Your task to perform on an android device: Is it going to rain today? Image 0: 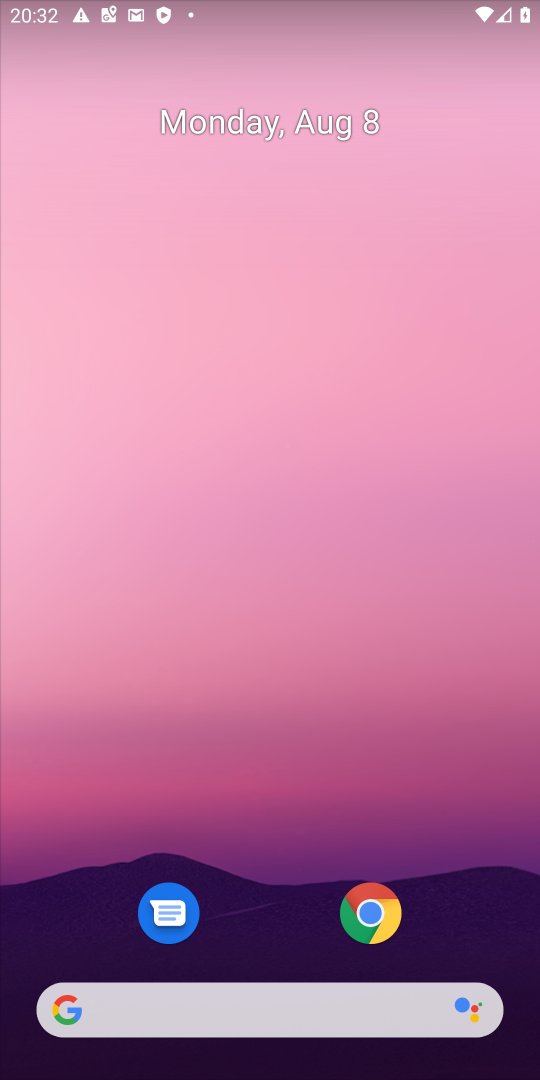
Step 0: press home button
Your task to perform on an android device: Is it going to rain today? Image 1: 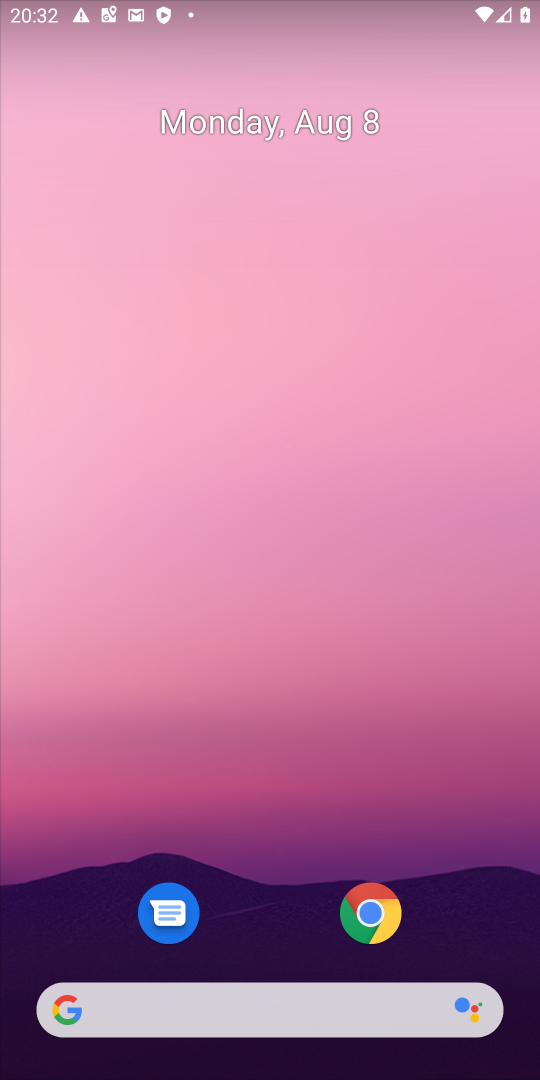
Step 1: click (376, 905)
Your task to perform on an android device: Is it going to rain today? Image 2: 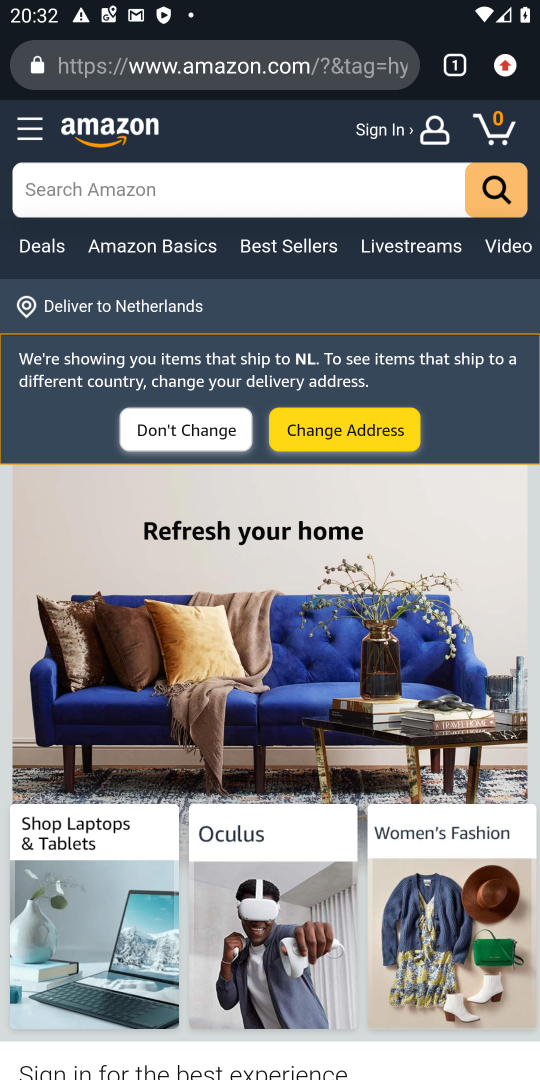
Step 2: click (200, 57)
Your task to perform on an android device: Is it going to rain today? Image 3: 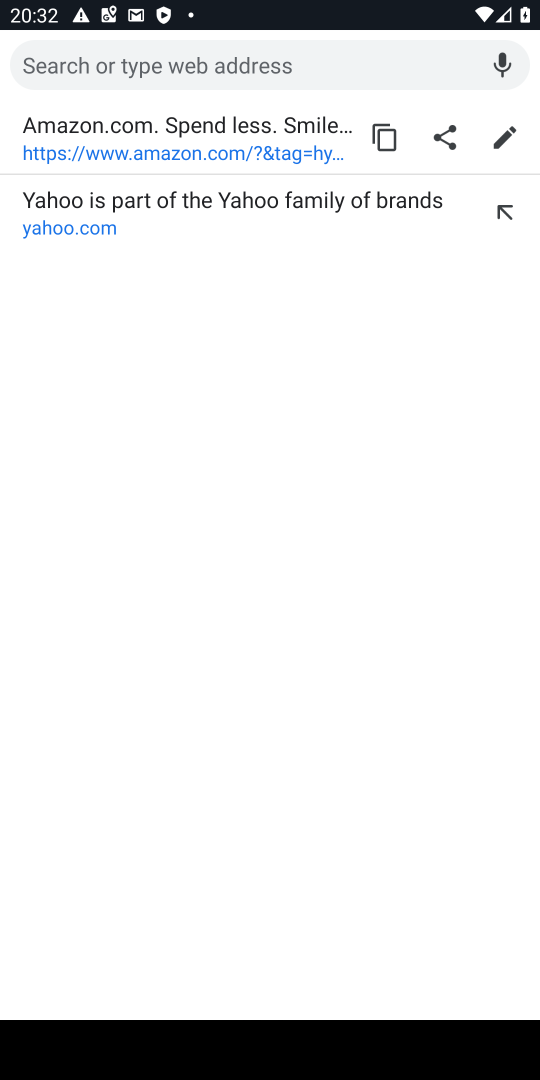
Step 3: type "Is it going to rain today?"
Your task to perform on an android device: Is it going to rain today? Image 4: 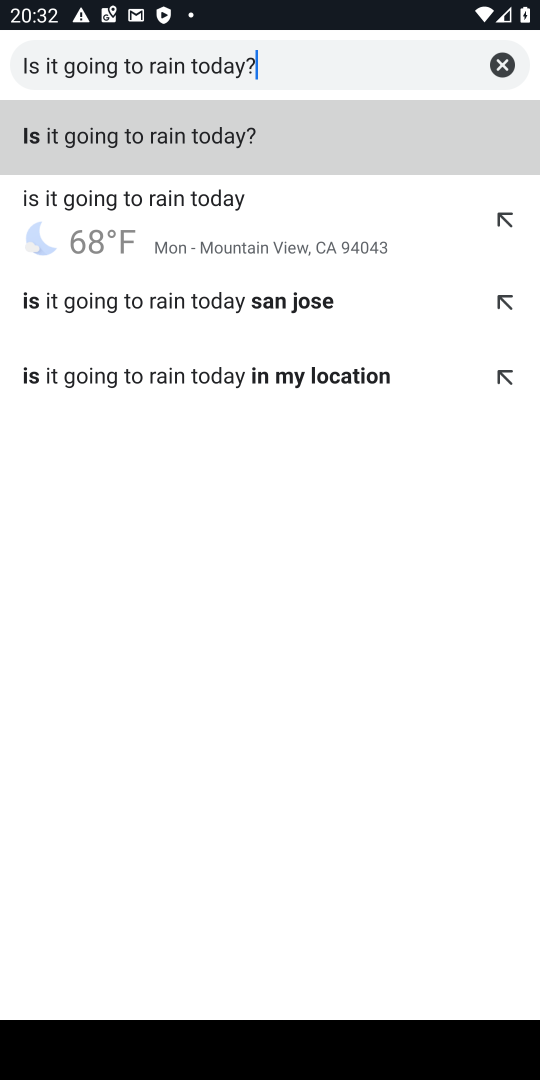
Step 4: type ""
Your task to perform on an android device: Is it going to rain today? Image 5: 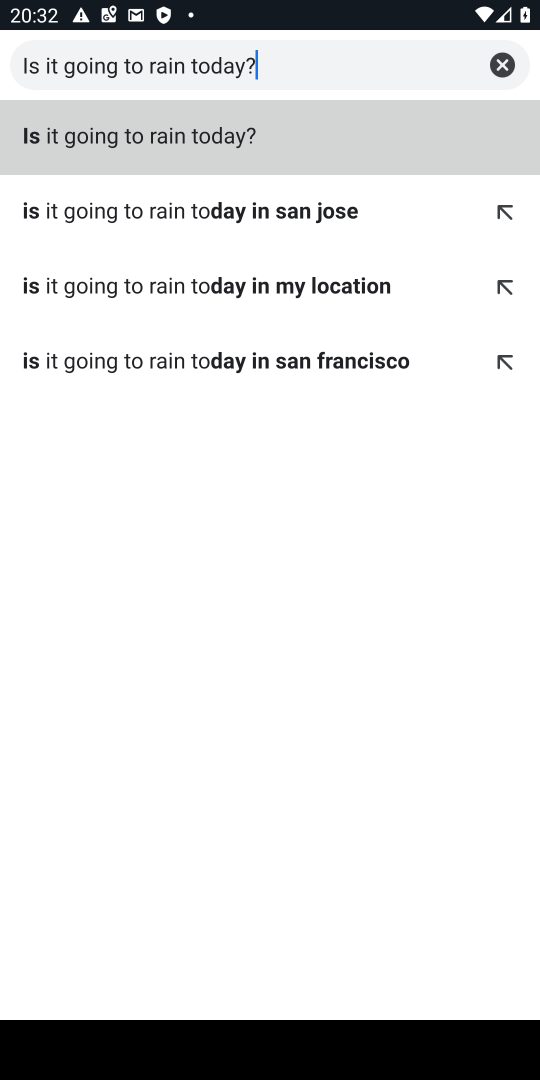
Step 5: click (135, 133)
Your task to perform on an android device: Is it going to rain today? Image 6: 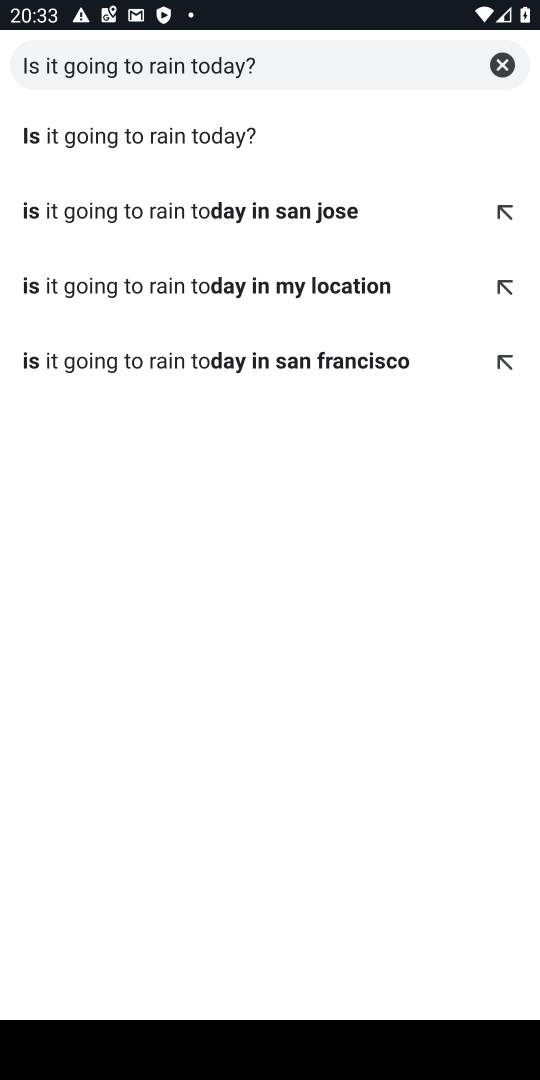
Step 6: click (60, 148)
Your task to perform on an android device: Is it going to rain today? Image 7: 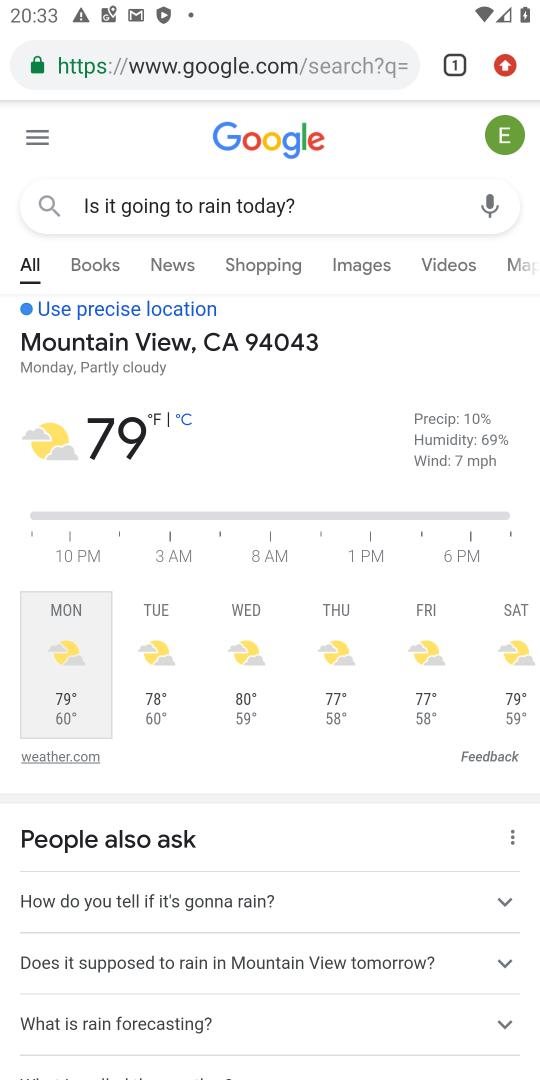
Step 7: task complete